Your task to perform on an android device: open app "Facebook Lite" Image 0: 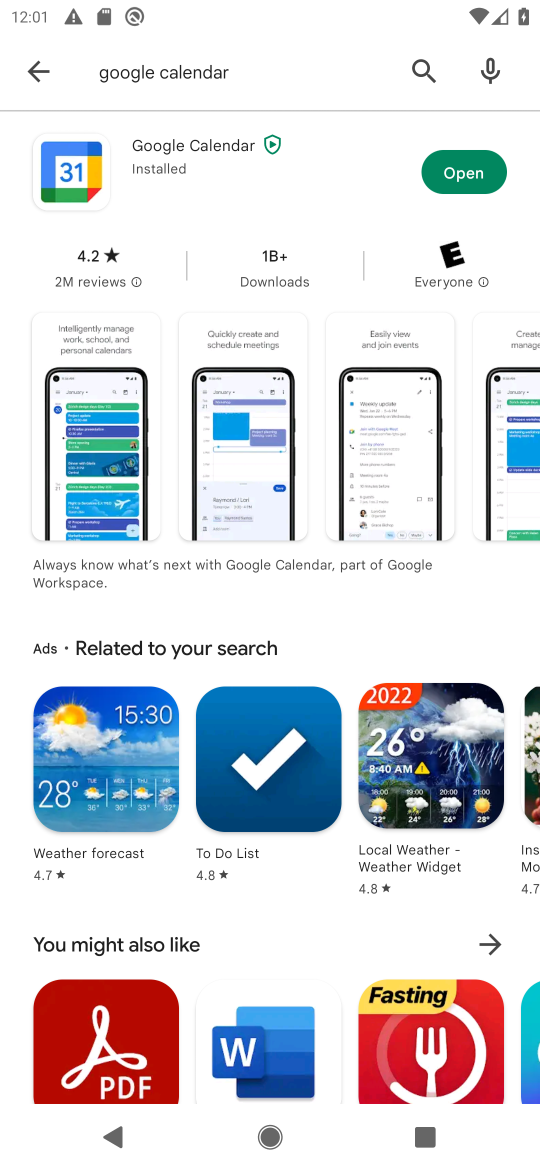
Step 0: press home button
Your task to perform on an android device: open app "Facebook Lite" Image 1: 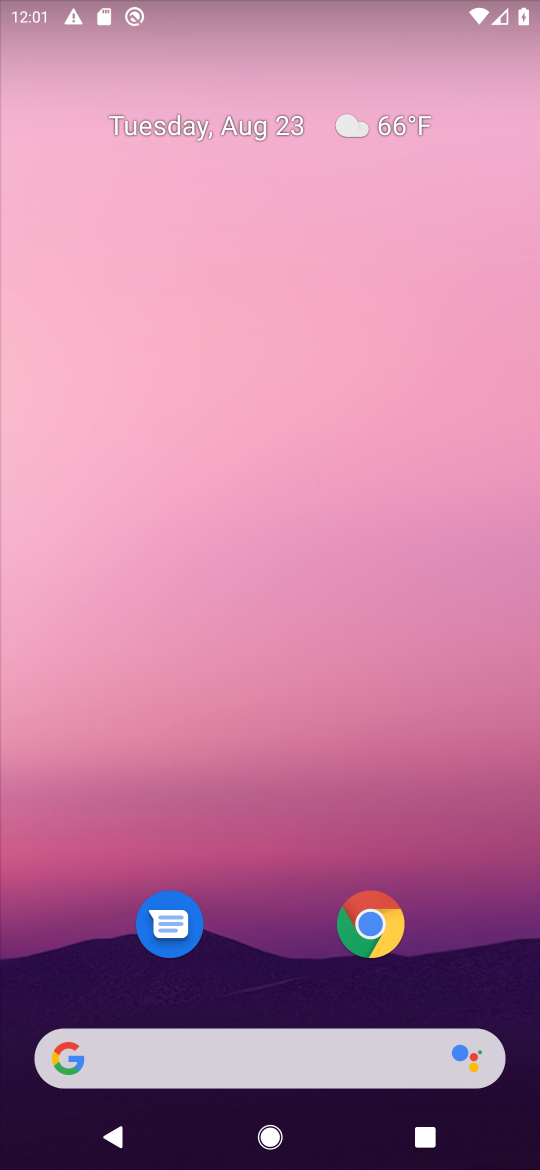
Step 1: drag from (467, 962) to (477, 113)
Your task to perform on an android device: open app "Facebook Lite" Image 2: 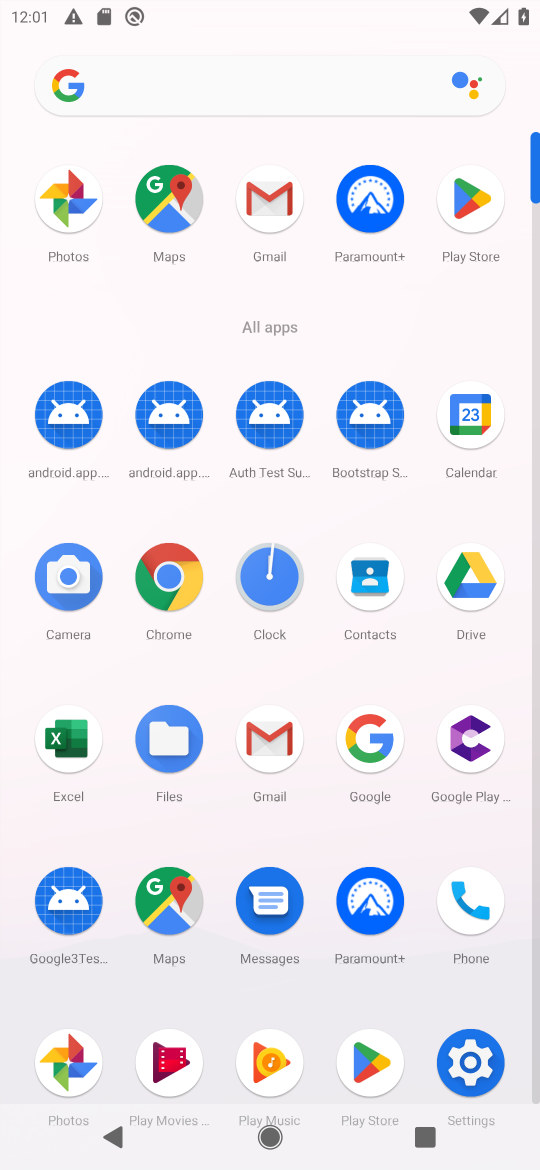
Step 2: click (473, 194)
Your task to perform on an android device: open app "Facebook Lite" Image 3: 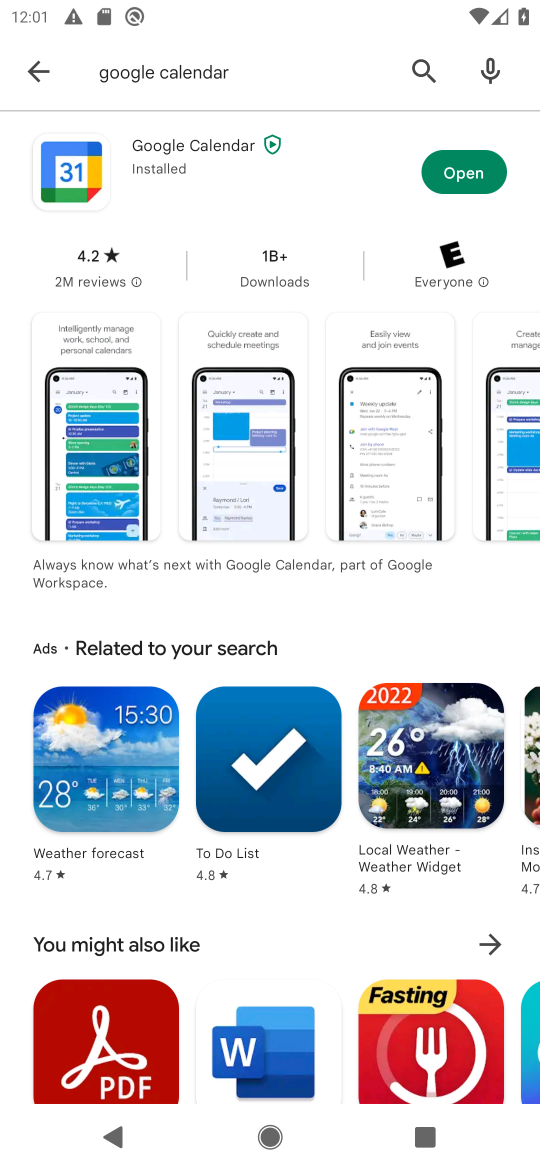
Step 3: press back button
Your task to perform on an android device: open app "Facebook Lite" Image 4: 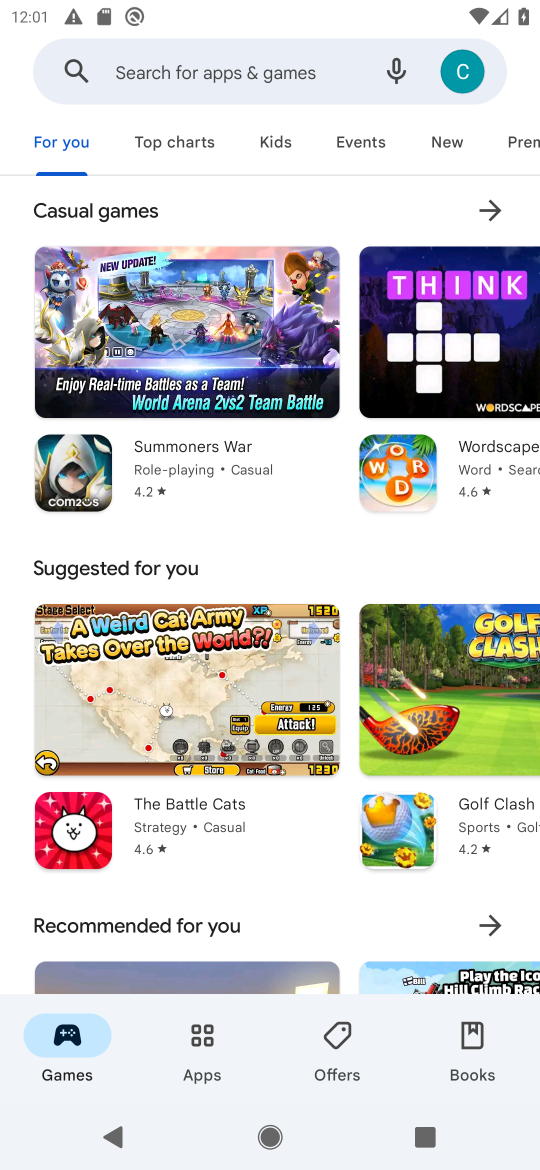
Step 4: click (192, 78)
Your task to perform on an android device: open app "Facebook Lite" Image 5: 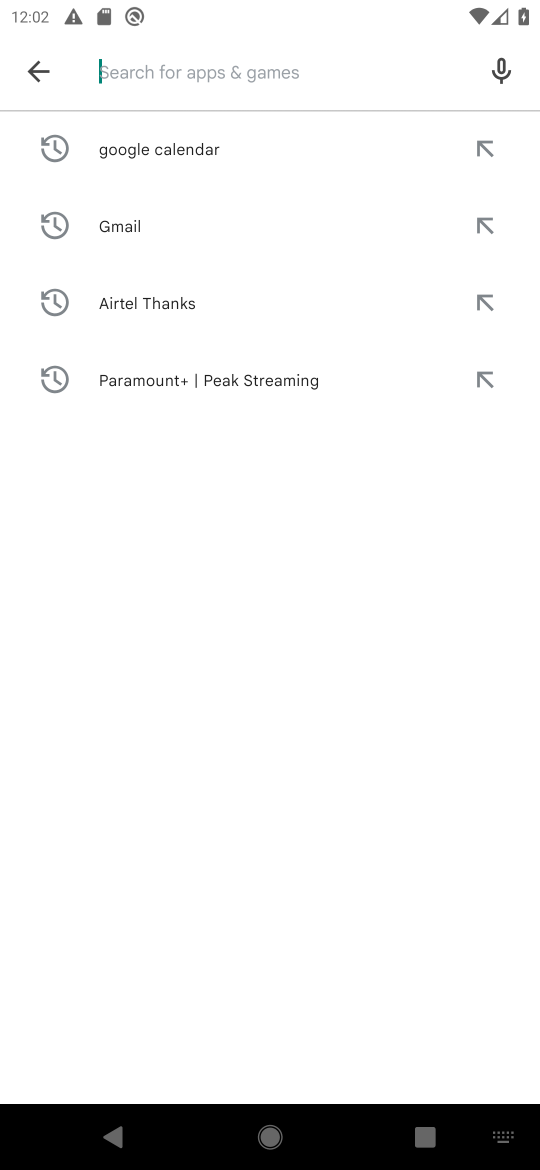
Step 5: type "Facebook Lite"
Your task to perform on an android device: open app "Facebook Lite" Image 6: 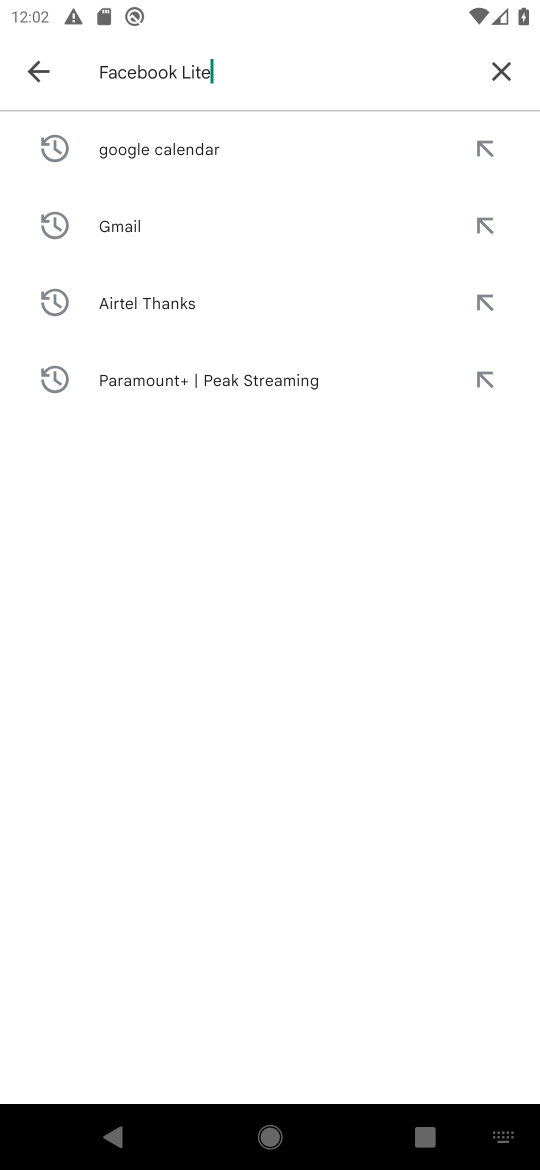
Step 6: press enter
Your task to perform on an android device: open app "Facebook Lite" Image 7: 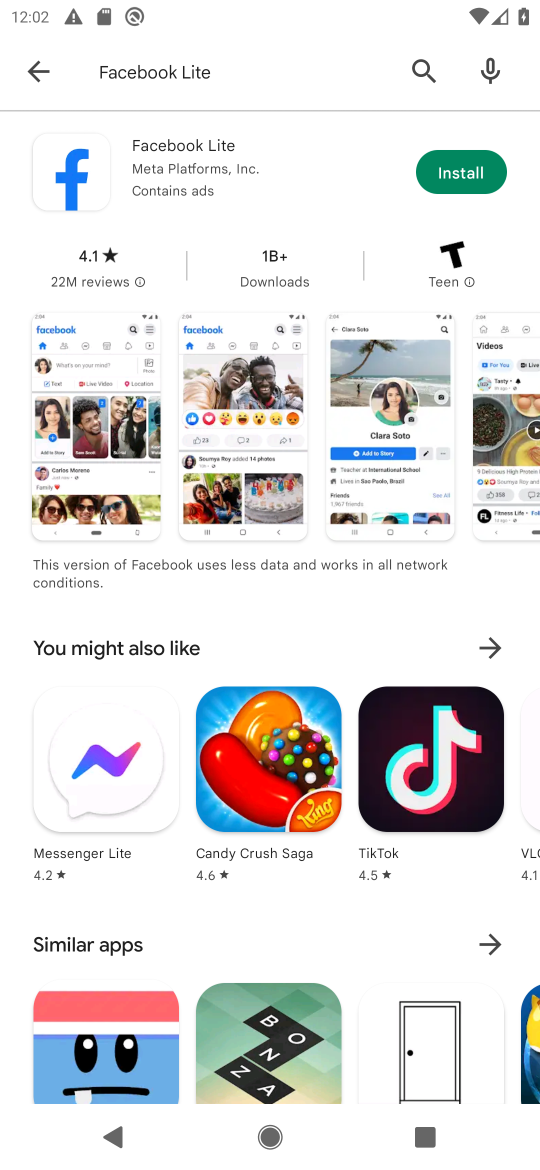
Step 7: task complete